Your task to perform on an android device: Show me the alarms in the clock app Image 0: 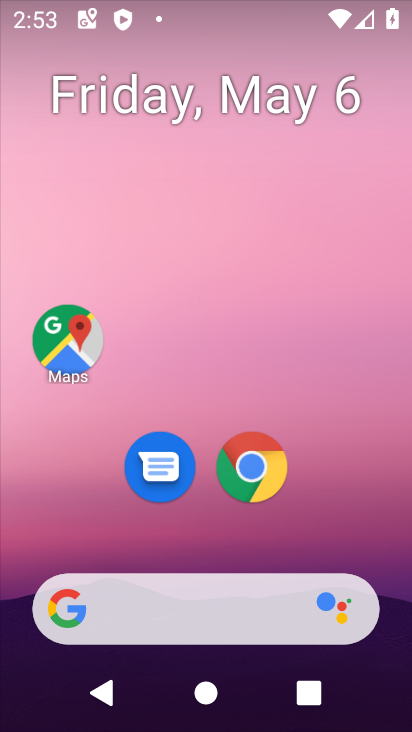
Step 0: drag from (231, 328) to (283, 12)
Your task to perform on an android device: Show me the alarms in the clock app Image 1: 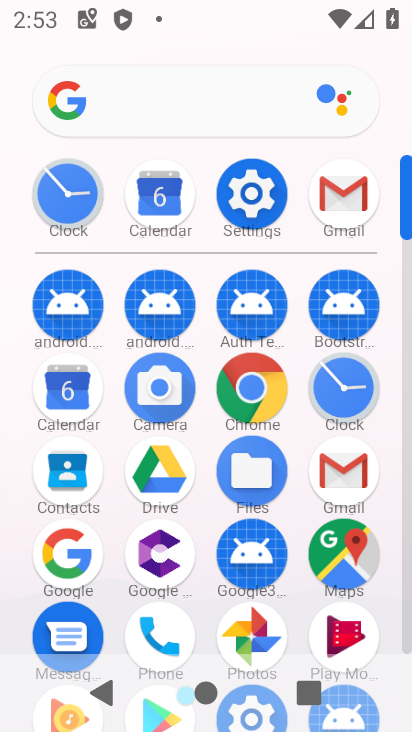
Step 1: click (346, 396)
Your task to perform on an android device: Show me the alarms in the clock app Image 2: 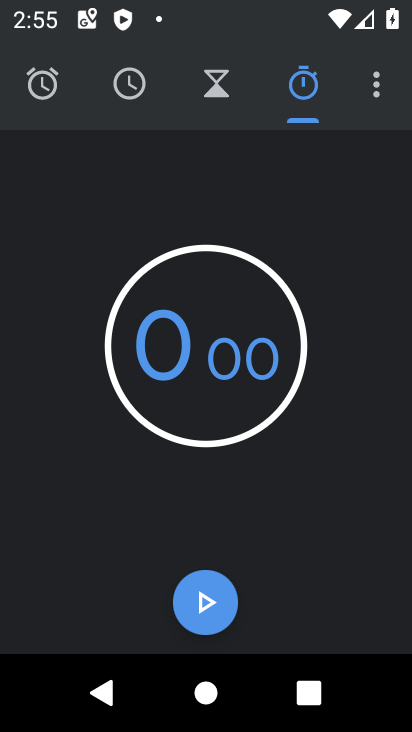
Step 2: drag from (380, 86) to (304, 280)
Your task to perform on an android device: Show me the alarms in the clock app Image 3: 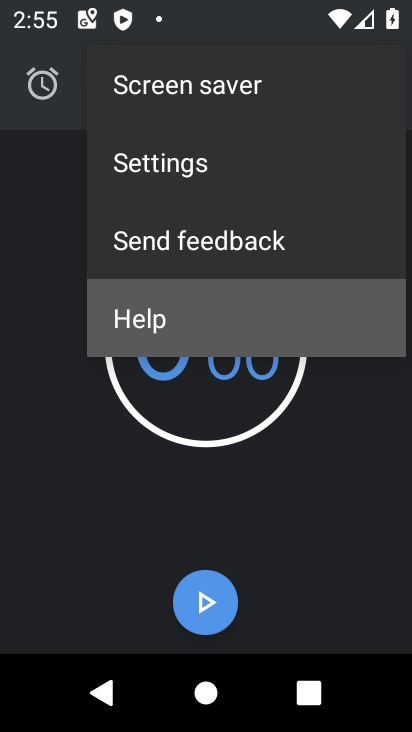
Step 3: click (320, 273)
Your task to perform on an android device: Show me the alarms in the clock app Image 4: 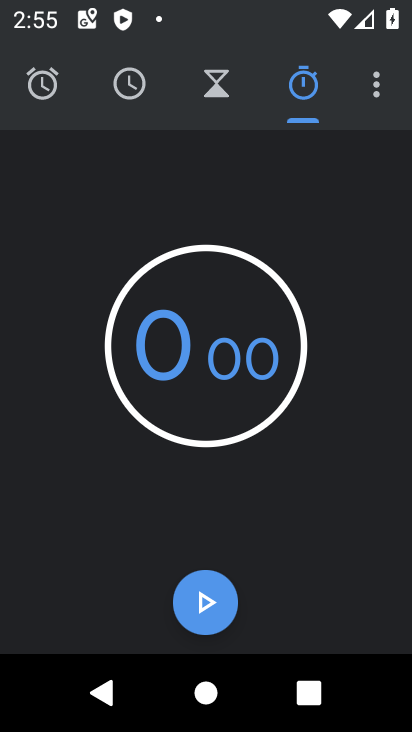
Step 4: click (378, 79)
Your task to perform on an android device: Show me the alarms in the clock app Image 5: 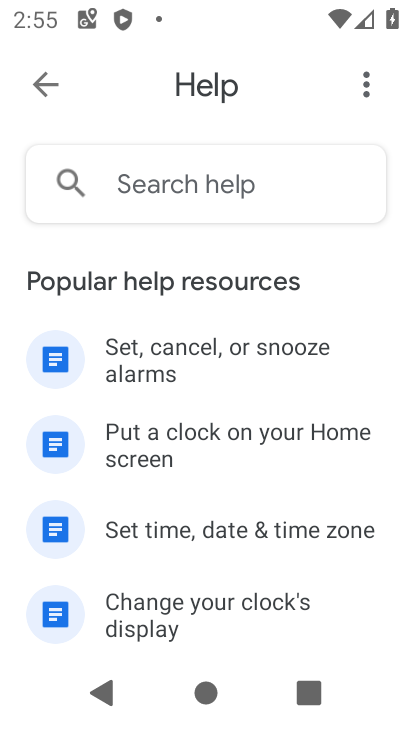
Step 5: press back button
Your task to perform on an android device: Show me the alarms in the clock app Image 6: 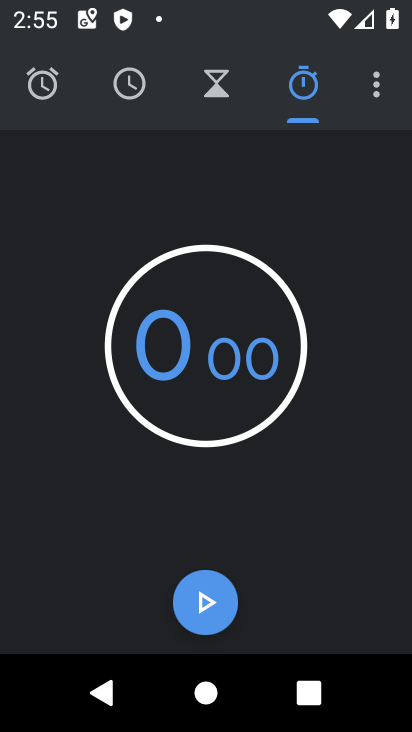
Step 6: click (371, 81)
Your task to perform on an android device: Show me the alarms in the clock app Image 7: 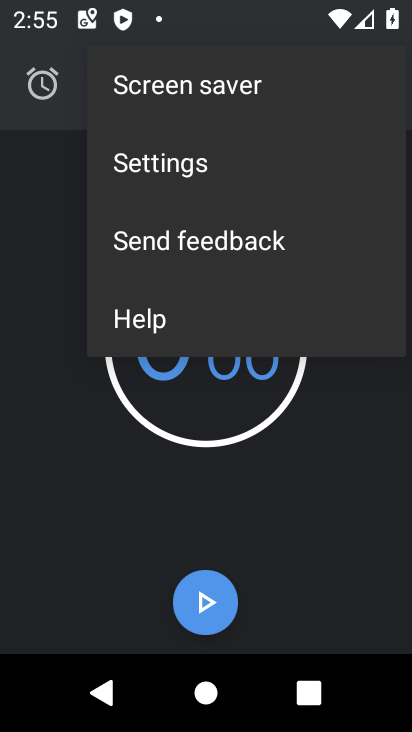
Step 7: click (235, 156)
Your task to perform on an android device: Show me the alarms in the clock app Image 8: 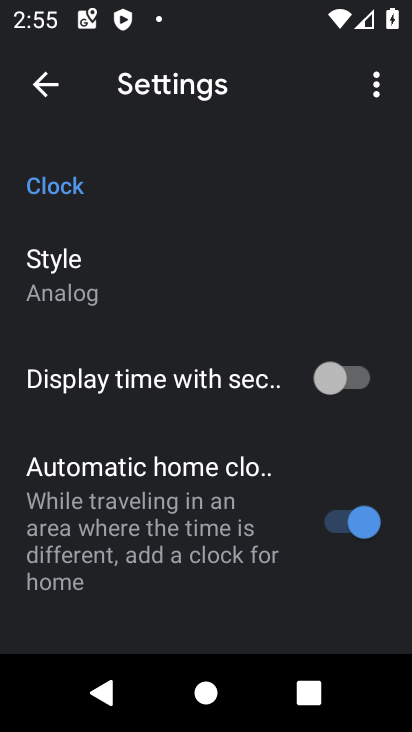
Step 8: click (30, 69)
Your task to perform on an android device: Show me the alarms in the clock app Image 9: 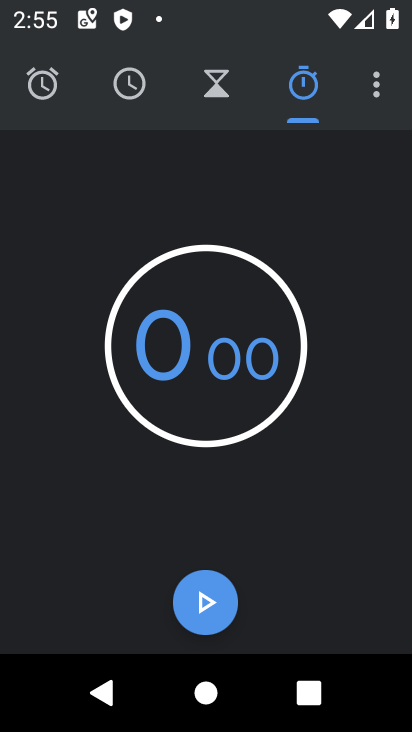
Step 9: click (33, 80)
Your task to perform on an android device: Show me the alarms in the clock app Image 10: 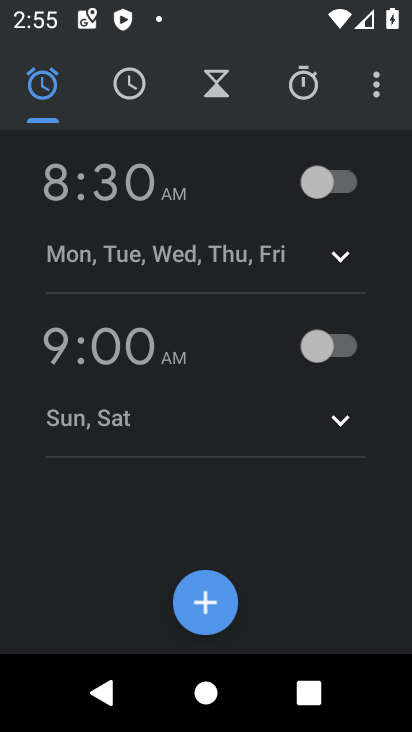
Step 10: task complete